Your task to perform on an android device: change the upload size in google photos Image 0: 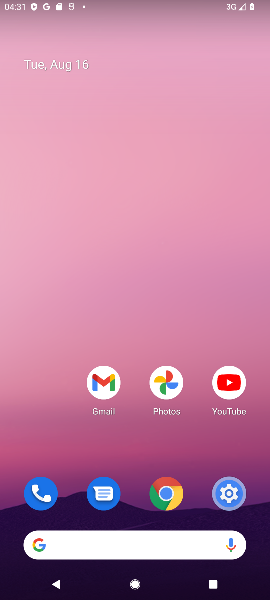
Step 0: press home button
Your task to perform on an android device: change the upload size in google photos Image 1: 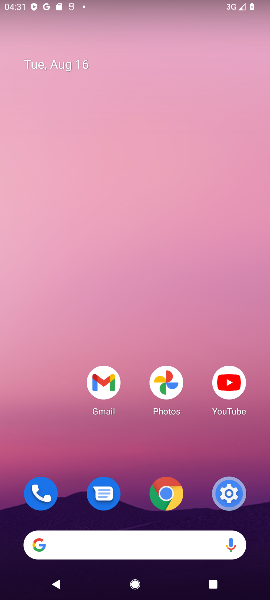
Step 1: drag from (72, 476) to (79, 122)
Your task to perform on an android device: change the upload size in google photos Image 2: 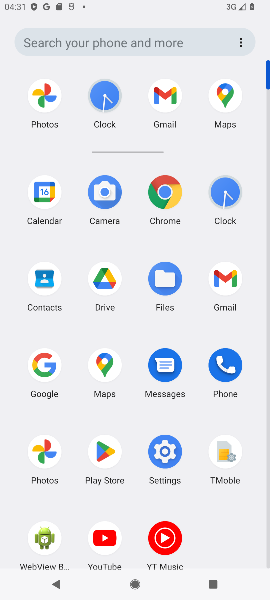
Step 2: click (42, 456)
Your task to perform on an android device: change the upload size in google photos Image 3: 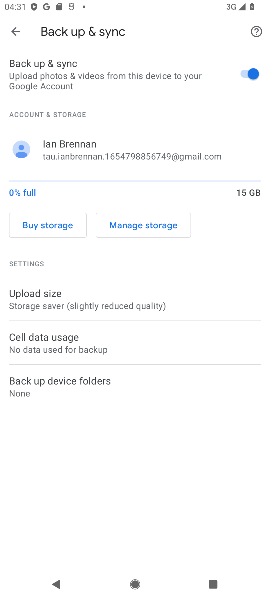
Step 3: click (100, 296)
Your task to perform on an android device: change the upload size in google photos Image 4: 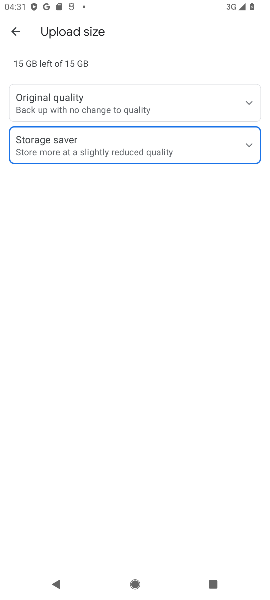
Step 4: click (107, 107)
Your task to perform on an android device: change the upload size in google photos Image 5: 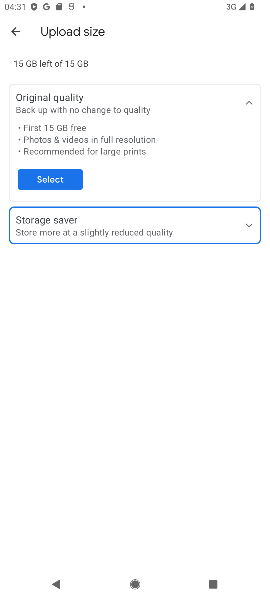
Step 5: click (59, 178)
Your task to perform on an android device: change the upload size in google photos Image 6: 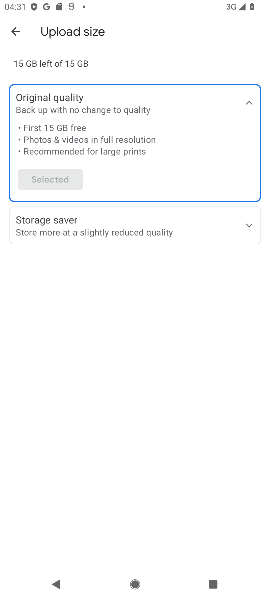
Step 6: task complete